Your task to perform on an android device: Show me recent news Image 0: 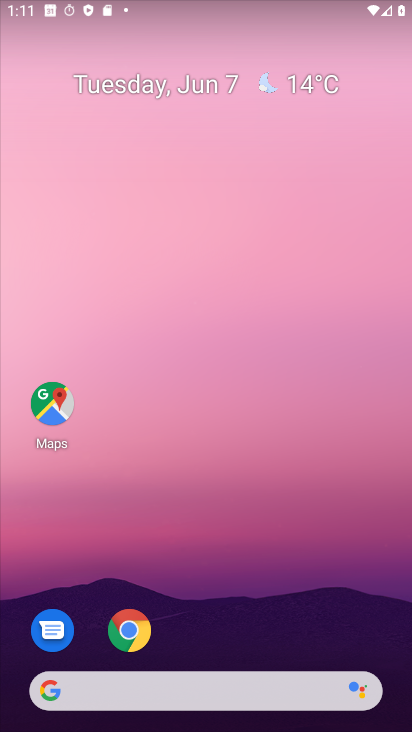
Step 0: click (188, 694)
Your task to perform on an android device: Show me recent news Image 1: 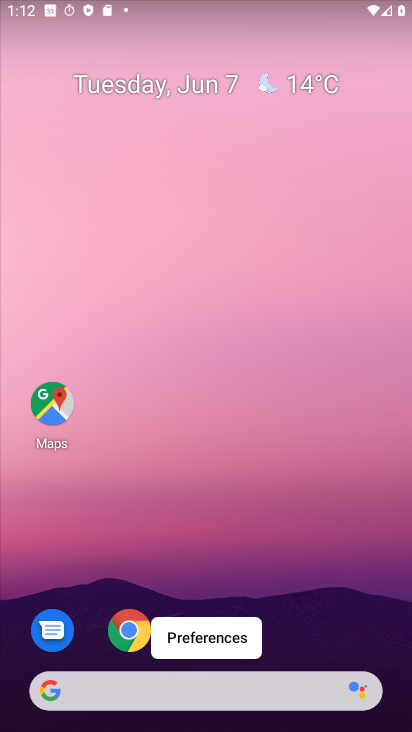
Step 1: click (187, 697)
Your task to perform on an android device: Show me recent news Image 2: 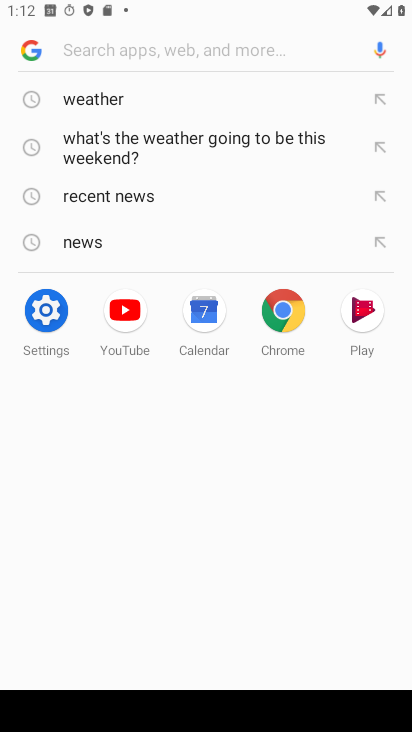
Step 2: type "recent news"
Your task to perform on an android device: Show me recent news Image 3: 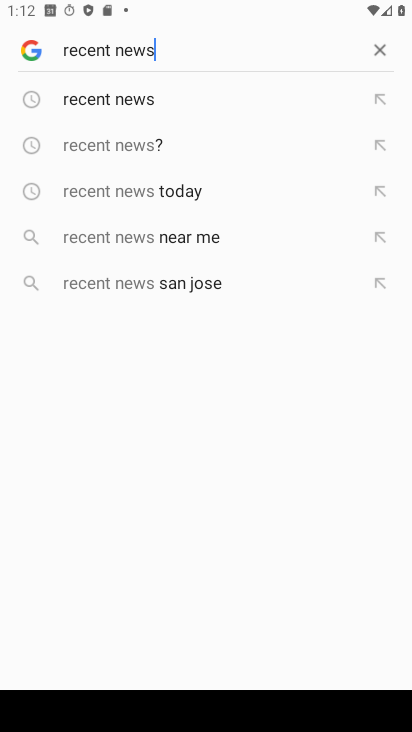
Step 3: click (116, 109)
Your task to perform on an android device: Show me recent news Image 4: 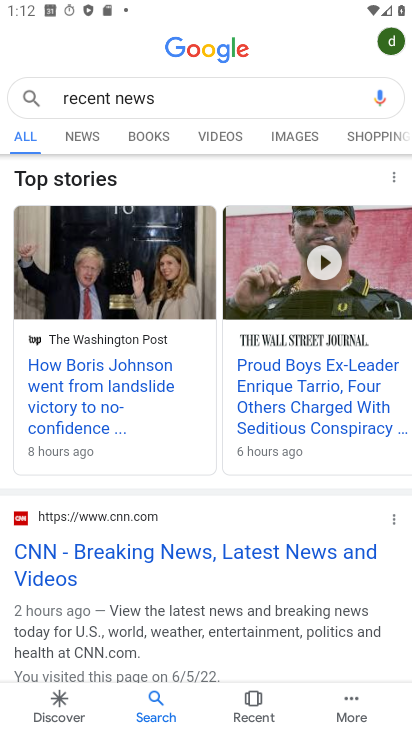
Step 4: task complete